Your task to perform on an android device: toggle javascript in the chrome app Image 0: 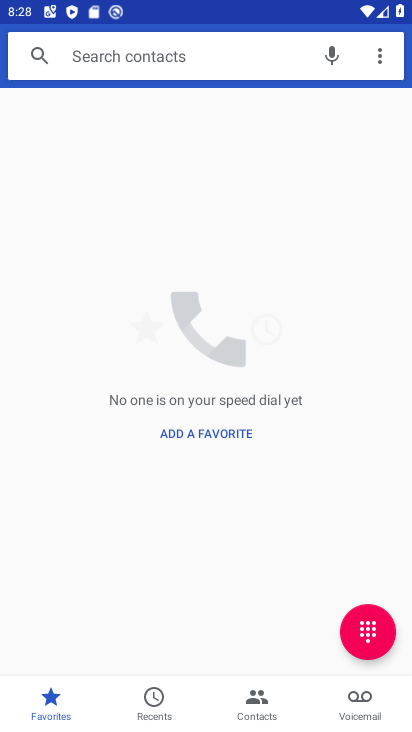
Step 0: press home button
Your task to perform on an android device: toggle javascript in the chrome app Image 1: 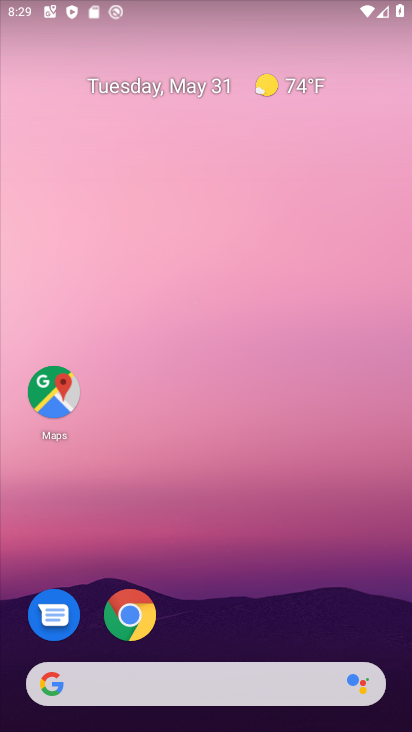
Step 1: click (115, 607)
Your task to perform on an android device: toggle javascript in the chrome app Image 2: 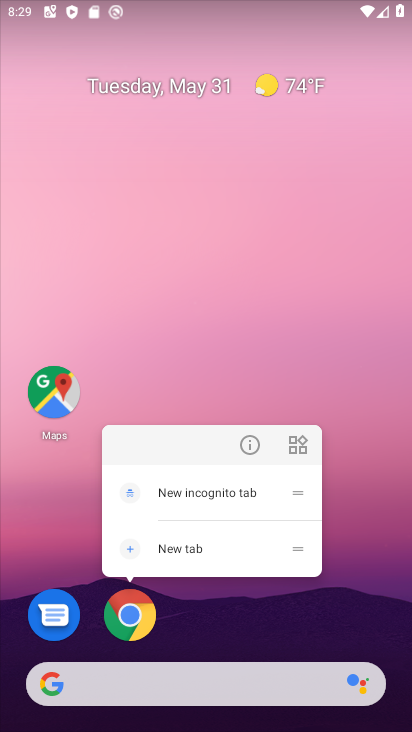
Step 2: click (129, 620)
Your task to perform on an android device: toggle javascript in the chrome app Image 3: 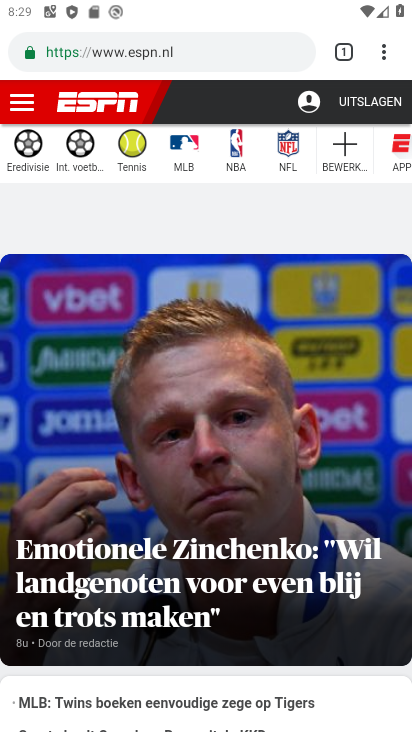
Step 3: drag from (383, 48) to (193, 571)
Your task to perform on an android device: toggle javascript in the chrome app Image 4: 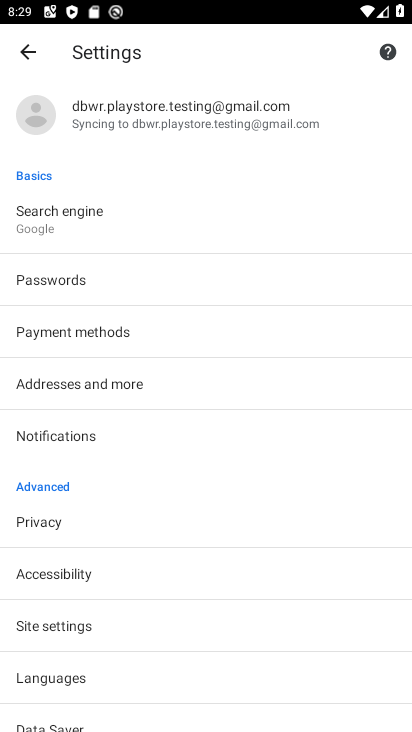
Step 4: click (142, 633)
Your task to perform on an android device: toggle javascript in the chrome app Image 5: 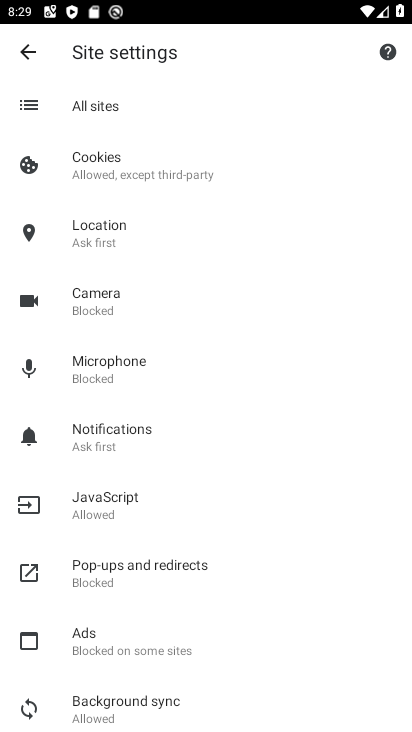
Step 5: click (175, 509)
Your task to perform on an android device: toggle javascript in the chrome app Image 6: 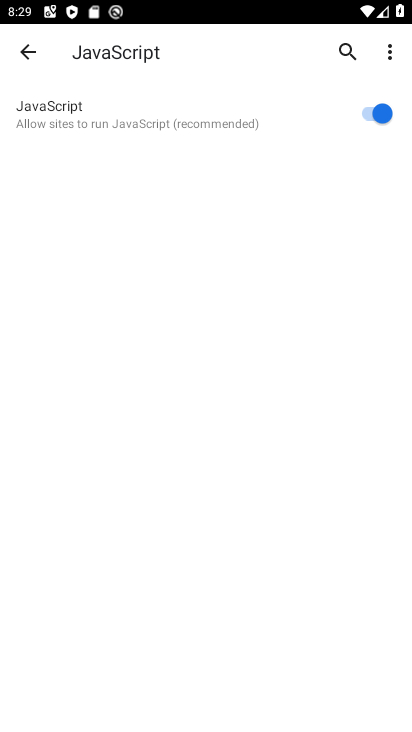
Step 6: click (358, 107)
Your task to perform on an android device: toggle javascript in the chrome app Image 7: 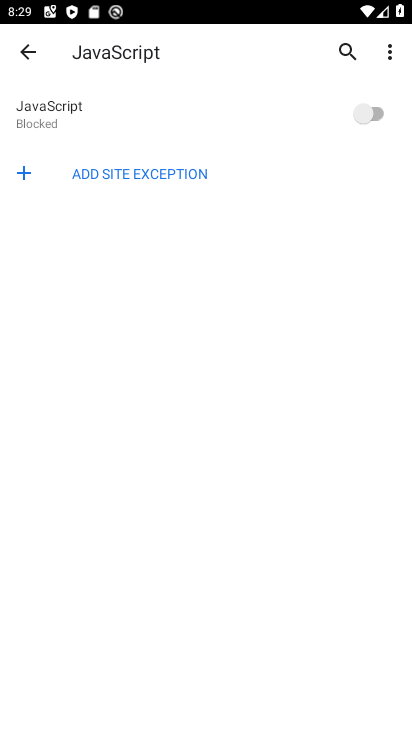
Step 7: task complete